Your task to perform on an android device: see sites visited before in the chrome app Image 0: 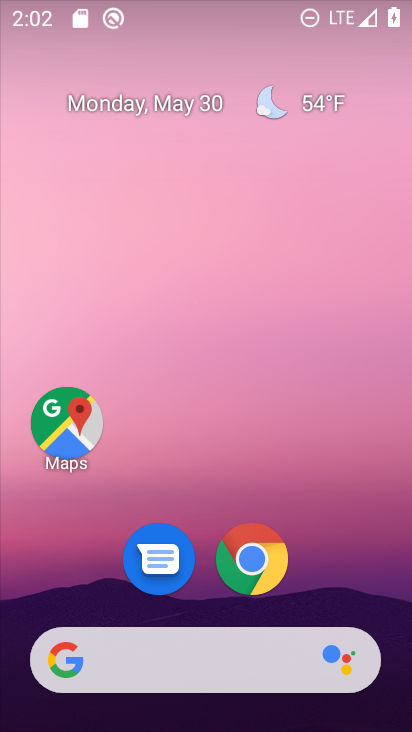
Step 0: press home button
Your task to perform on an android device: see sites visited before in the chrome app Image 1: 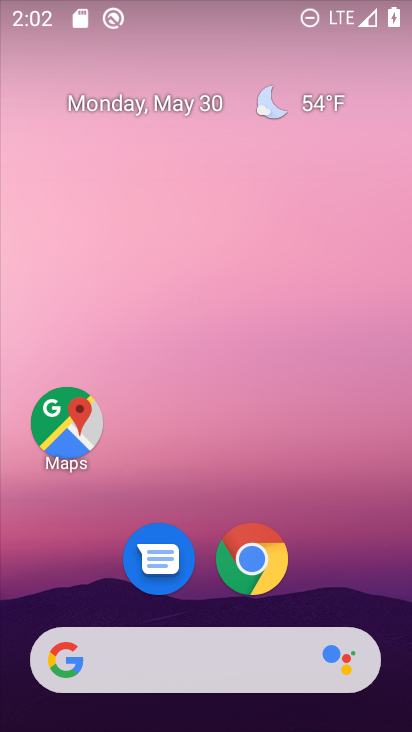
Step 1: click (261, 565)
Your task to perform on an android device: see sites visited before in the chrome app Image 2: 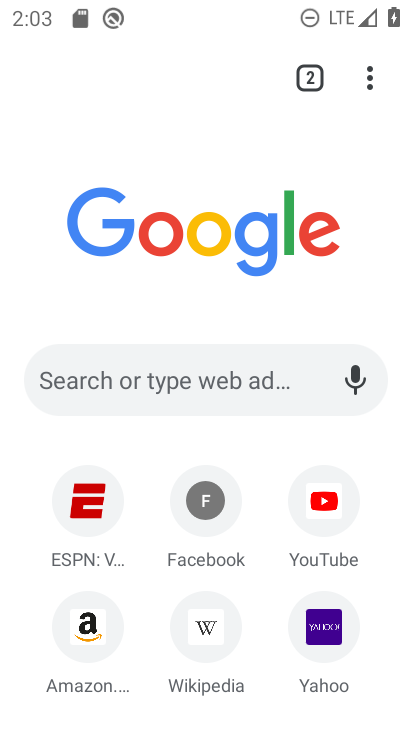
Step 2: click (353, 84)
Your task to perform on an android device: see sites visited before in the chrome app Image 3: 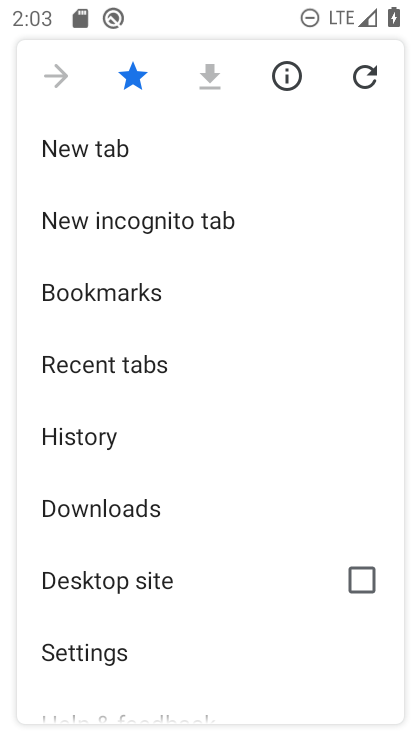
Step 3: click (59, 431)
Your task to perform on an android device: see sites visited before in the chrome app Image 4: 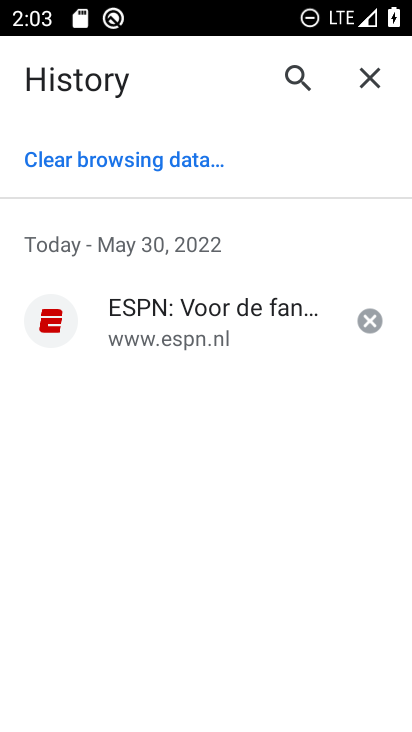
Step 4: task complete